Your task to perform on an android device: When is my next meeting? Image 0: 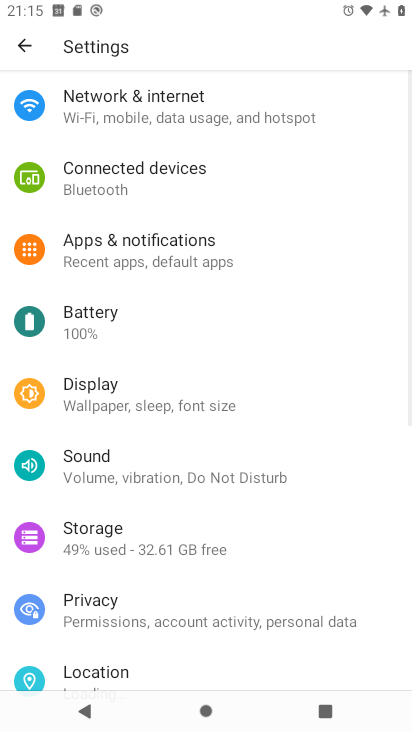
Step 0: press home button
Your task to perform on an android device: When is my next meeting? Image 1: 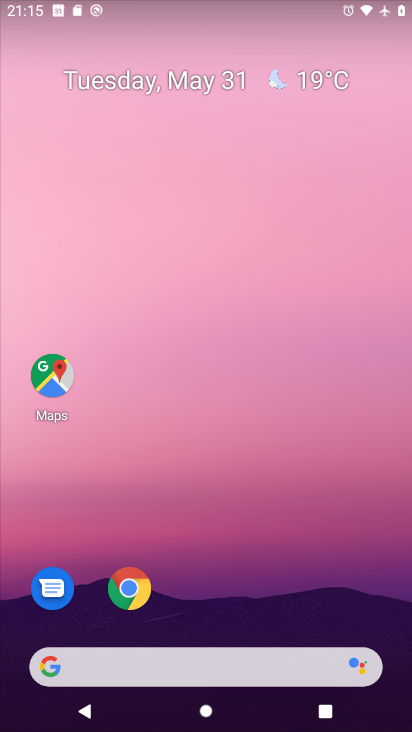
Step 1: drag from (157, 662) to (276, 86)
Your task to perform on an android device: When is my next meeting? Image 2: 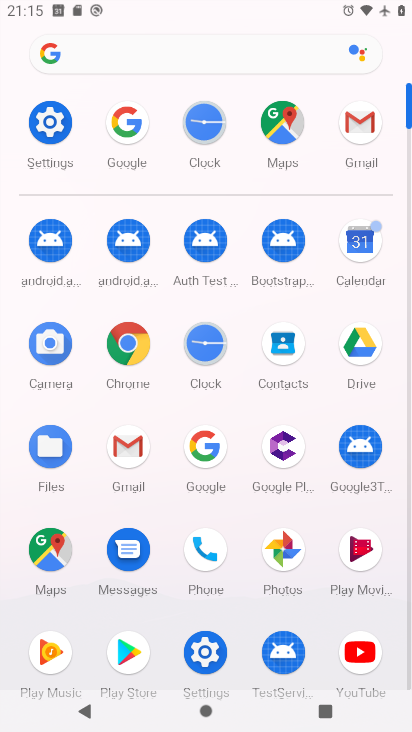
Step 2: click (357, 248)
Your task to perform on an android device: When is my next meeting? Image 3: 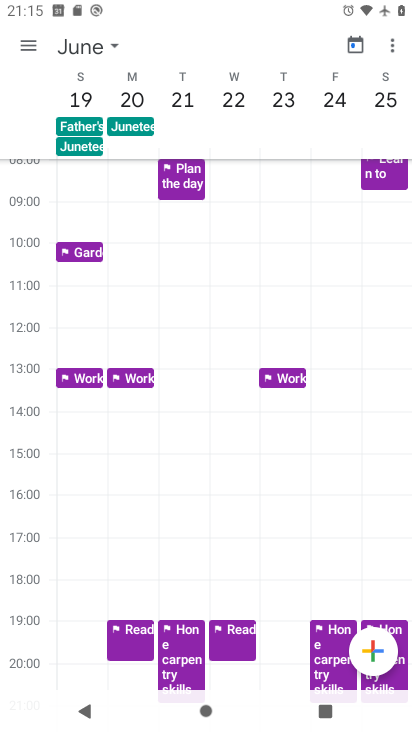
Step 3: click (80, 45)
Your task to perform on an android device: When is my next meeting? Image 4: 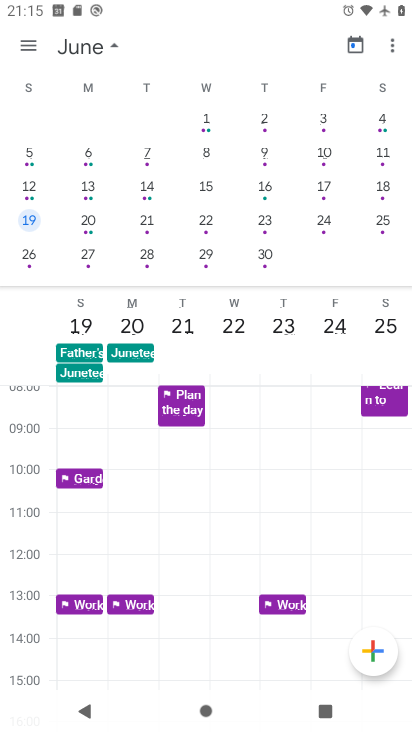
Step 4: drag from (27, 162) to (374, 132)
Your task to perform on an android device: When is my next meeting? Image 5: 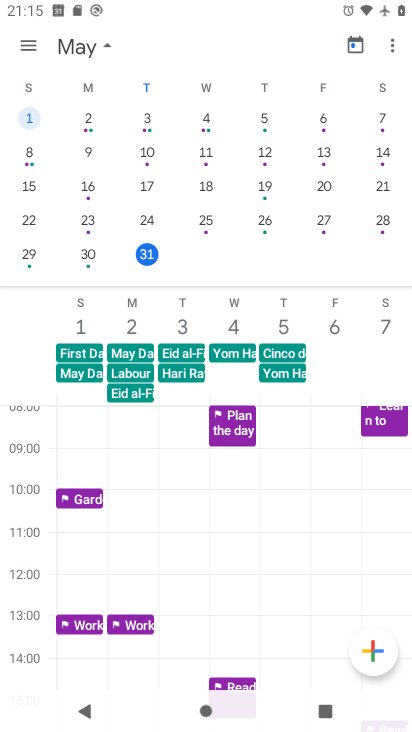
Step 5: click (149, 256)
Your task to perform on an android device: When is my next meeting? Image 6: 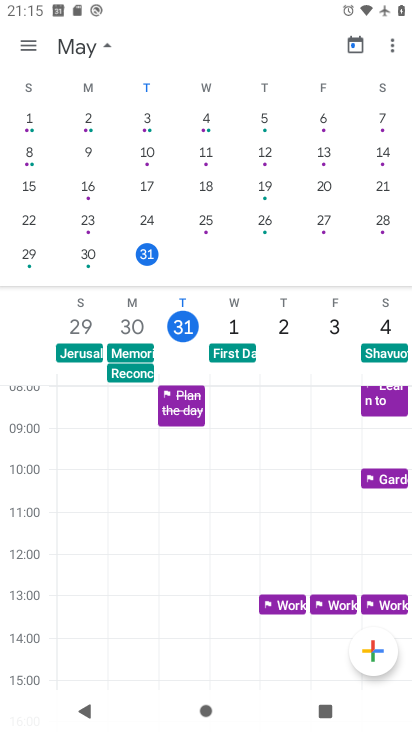
Step 6: click (17, 46)
Your task to perform on an android device: When is my next meeting? Image 7: 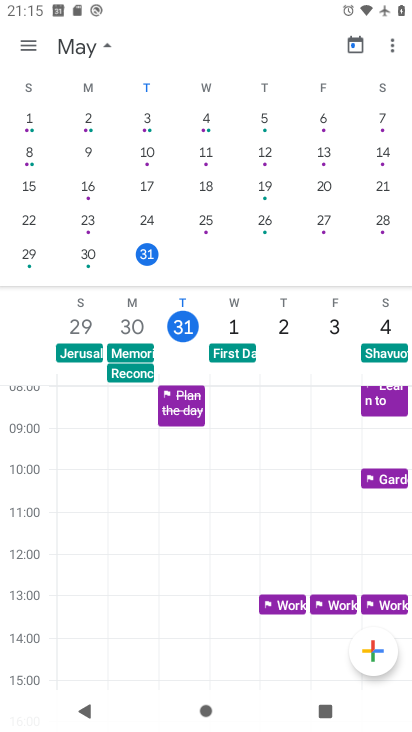
Step 7: click (28, 44)
Your task to perform on an android device: When is my next meeting? Image 8: 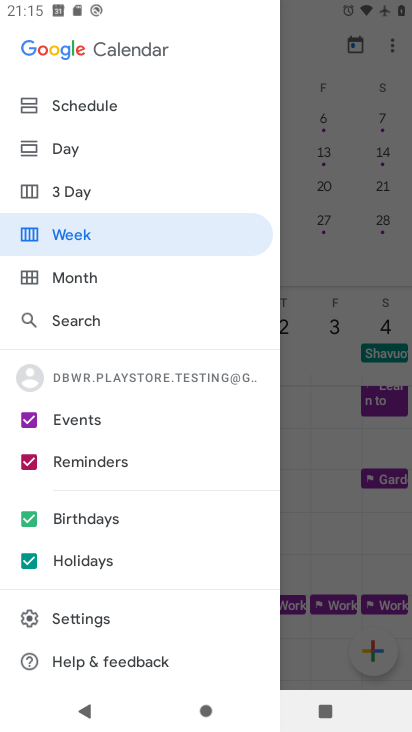
Step 8: click (95, 106)
Your task to perform on an android device: When is my next meeting? Image 9: 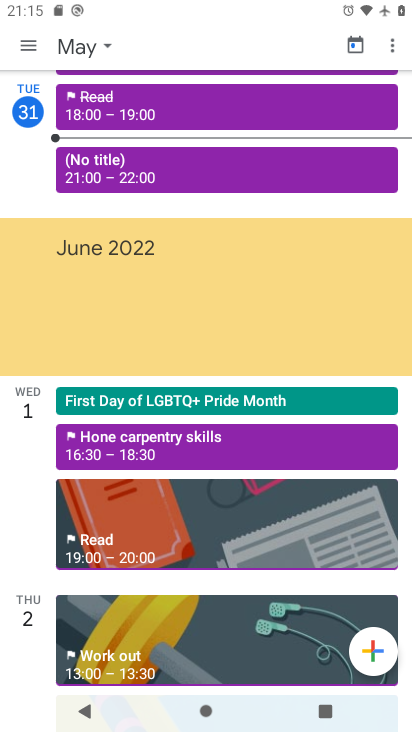
Step 9: click (143, 452)
Your task to perform on an android device: When is my next meeting? Image 10: 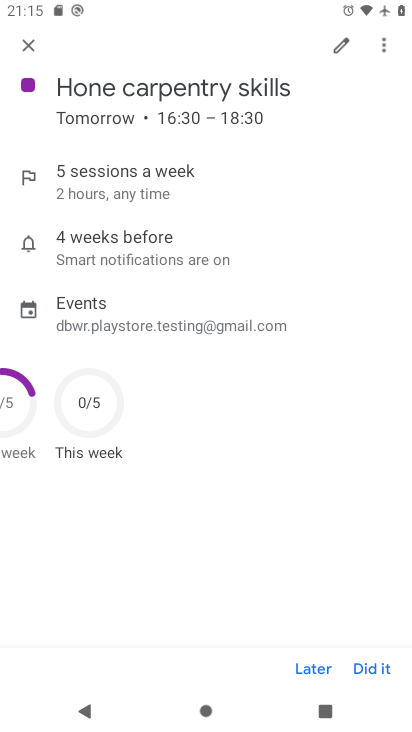
Step 10: task complete